Your task to perform on an android device: Open my contact list Image 0: 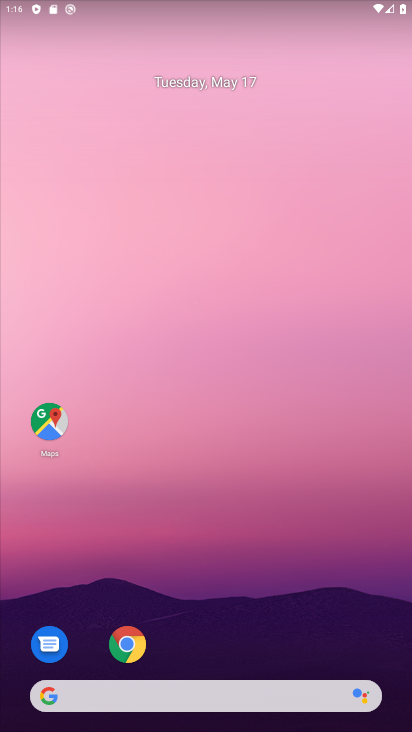
Step 0: drag from (208, 696) to (272, 152)
Your task to perform on an android device: Open my contact list Image 1: 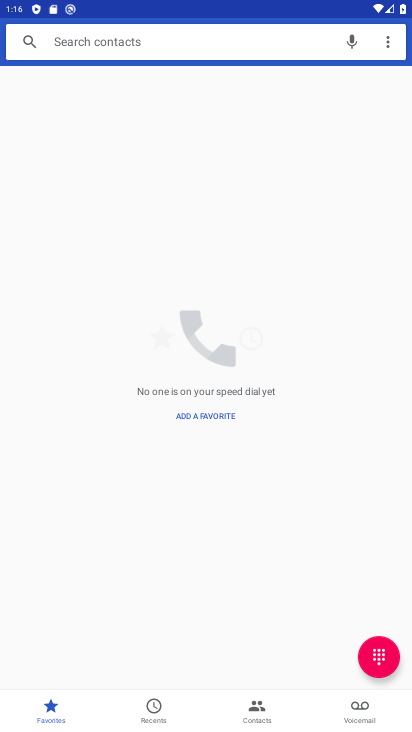
Step 1: press home button
Your task to perform on an android device: Open my contact list Image 2: 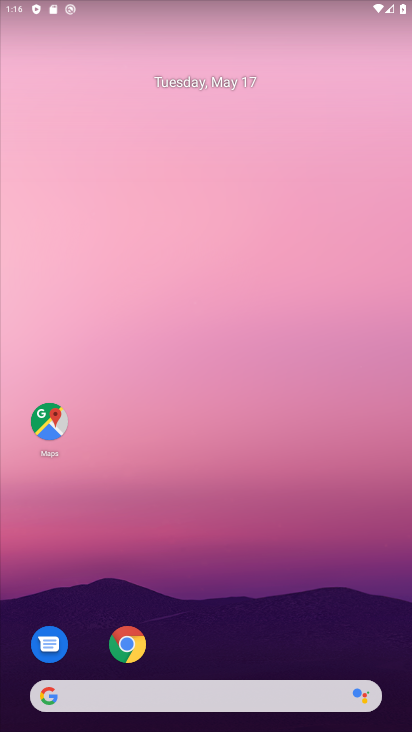
Step 2: drag from (262, 697) to (257, 228)
Your task to perform on an android device: Open my contact list Image 3: 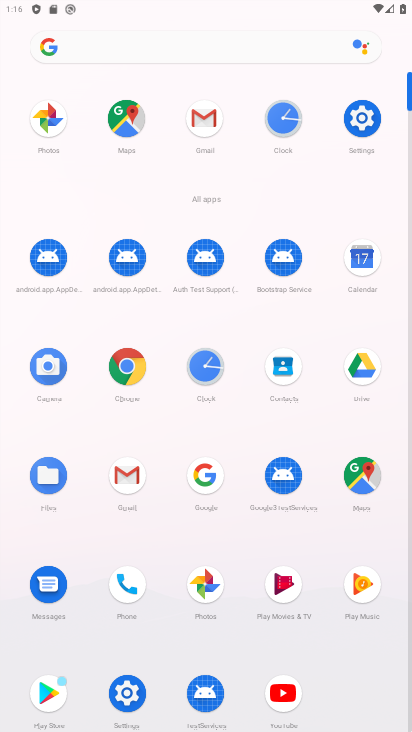
Step 3: click (285, 367)
Your task to perform on an android device: Open my contact list Image 4: 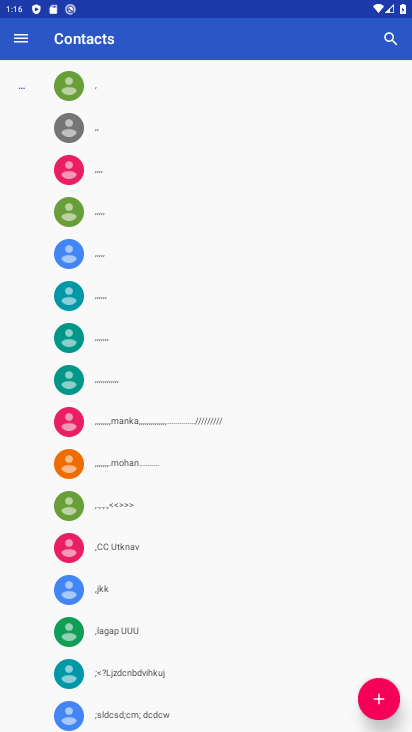
Step 4: task complete